Your task to perform on an android device: turn off translation in the chrome app Image 0: 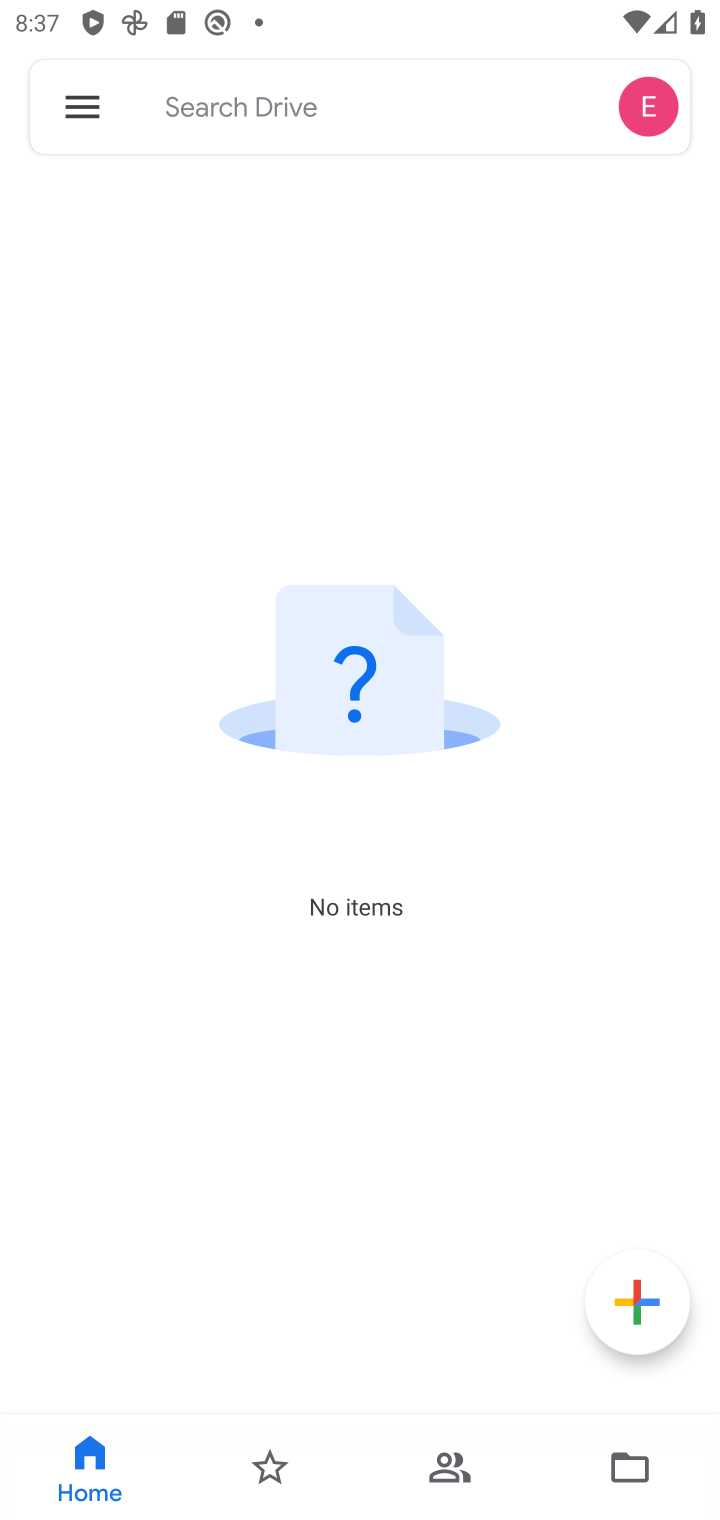
Step 0: press home button
Your task to perform on an android device: turn off translation in the chrome app Image 1: 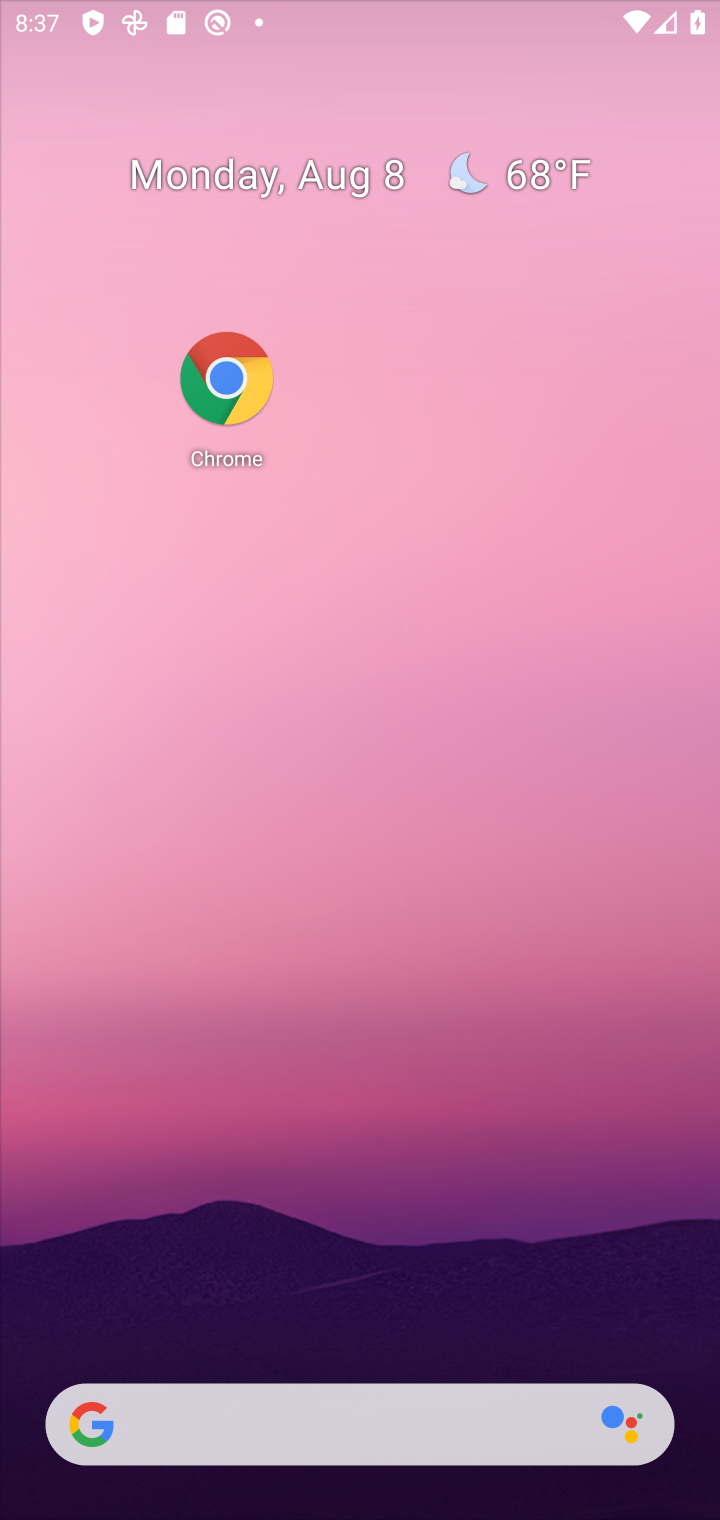
Step 1: drag from (440, 1220) to (422, 9)
Your task to perform on an android device: turn off translation in the chrome app Image 2: 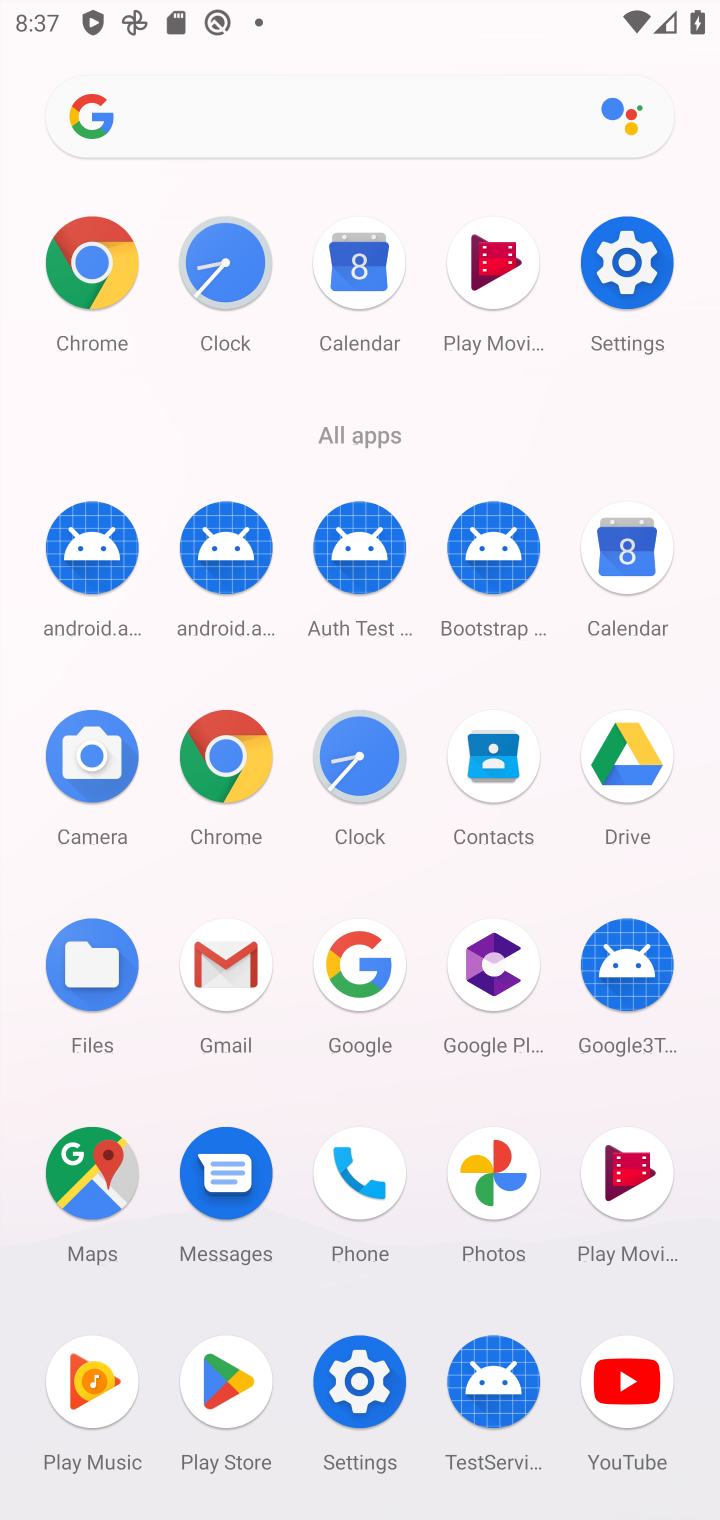
Step 2: click (92, 286)
Your task to perform on an android device: turn off translation in the chrome app Image 3: 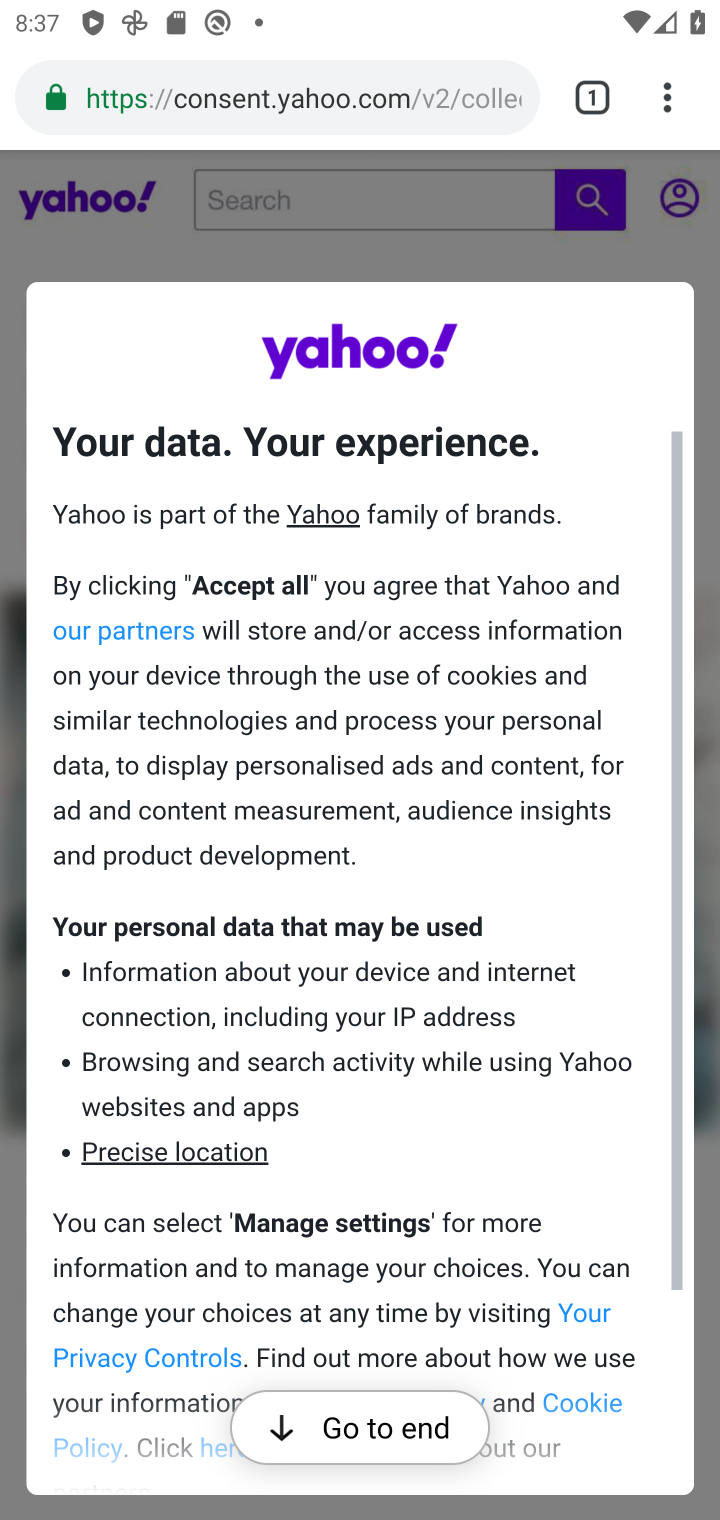
Step 3: drag from (671, 99) to (387, 1201)
Your task to perform on an android device: turn off translation in the chrome app Image 4: 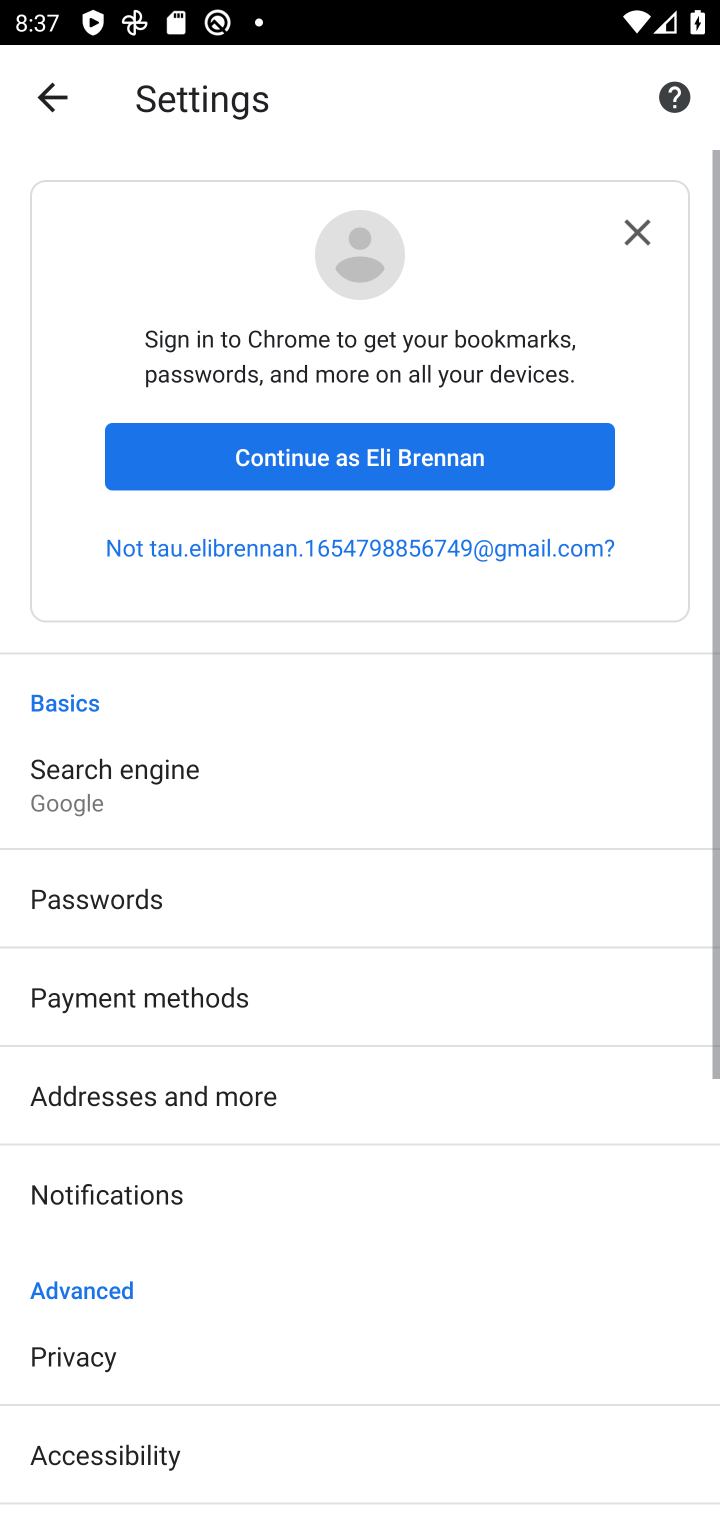
Step 4: drag from (200, 1368) to (314, 178)
Your task to perform on an android device: turn off translation in the chrome app Image 5: 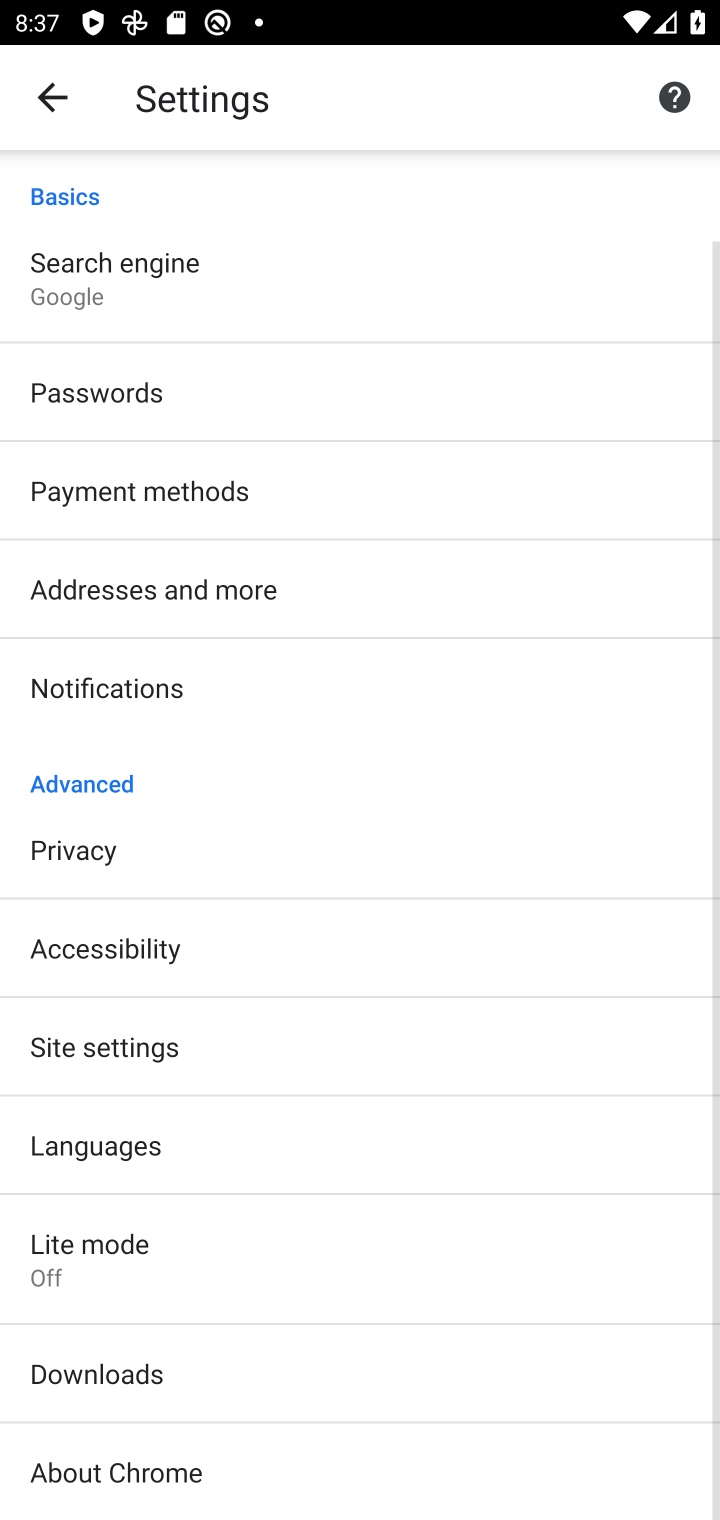
Step 5: drag from (170, 1411) to (282, 1045)
Your task to perform on an android device: turn off translation in the chrome app Image 6: 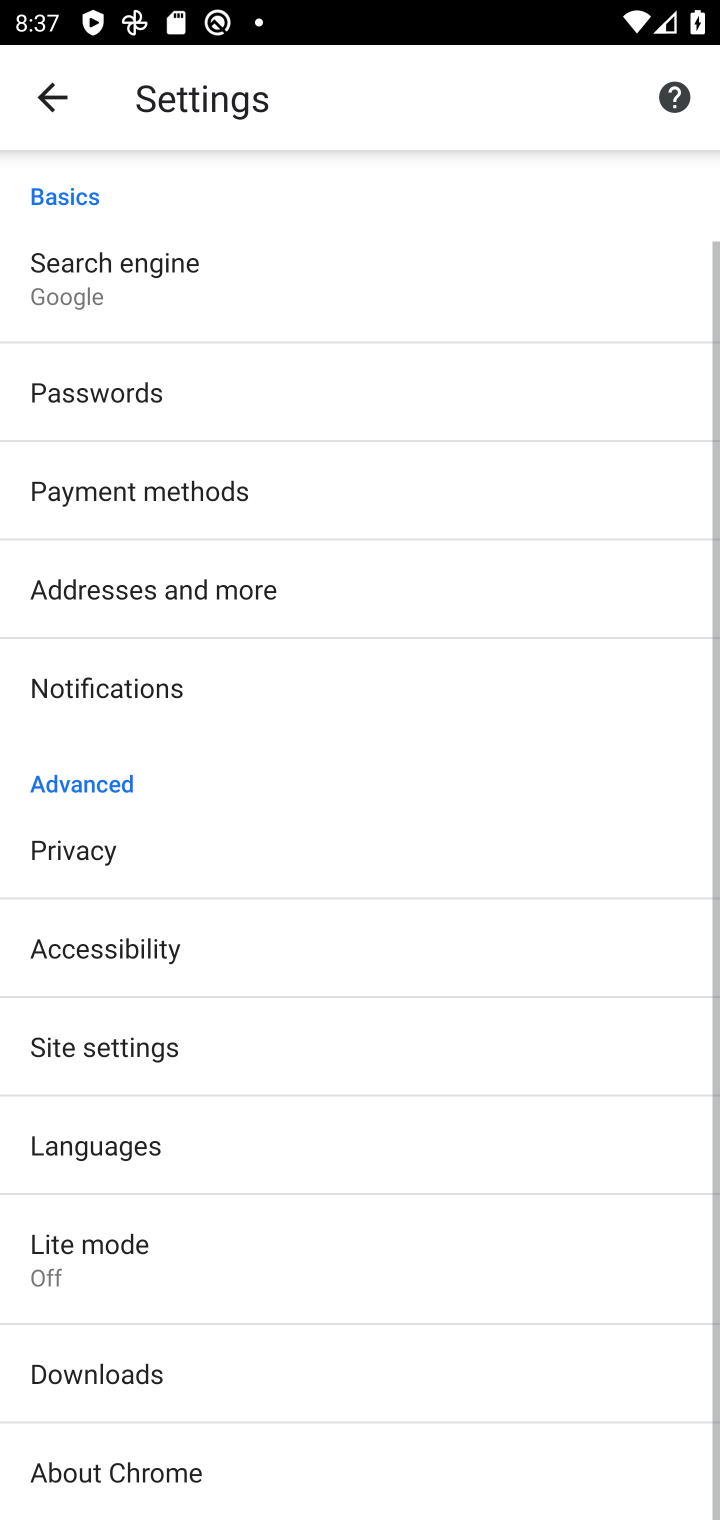
Step 6: click (143, 1148)
Your task to perform on an android device: turn off translation in the chrome app Image 7: 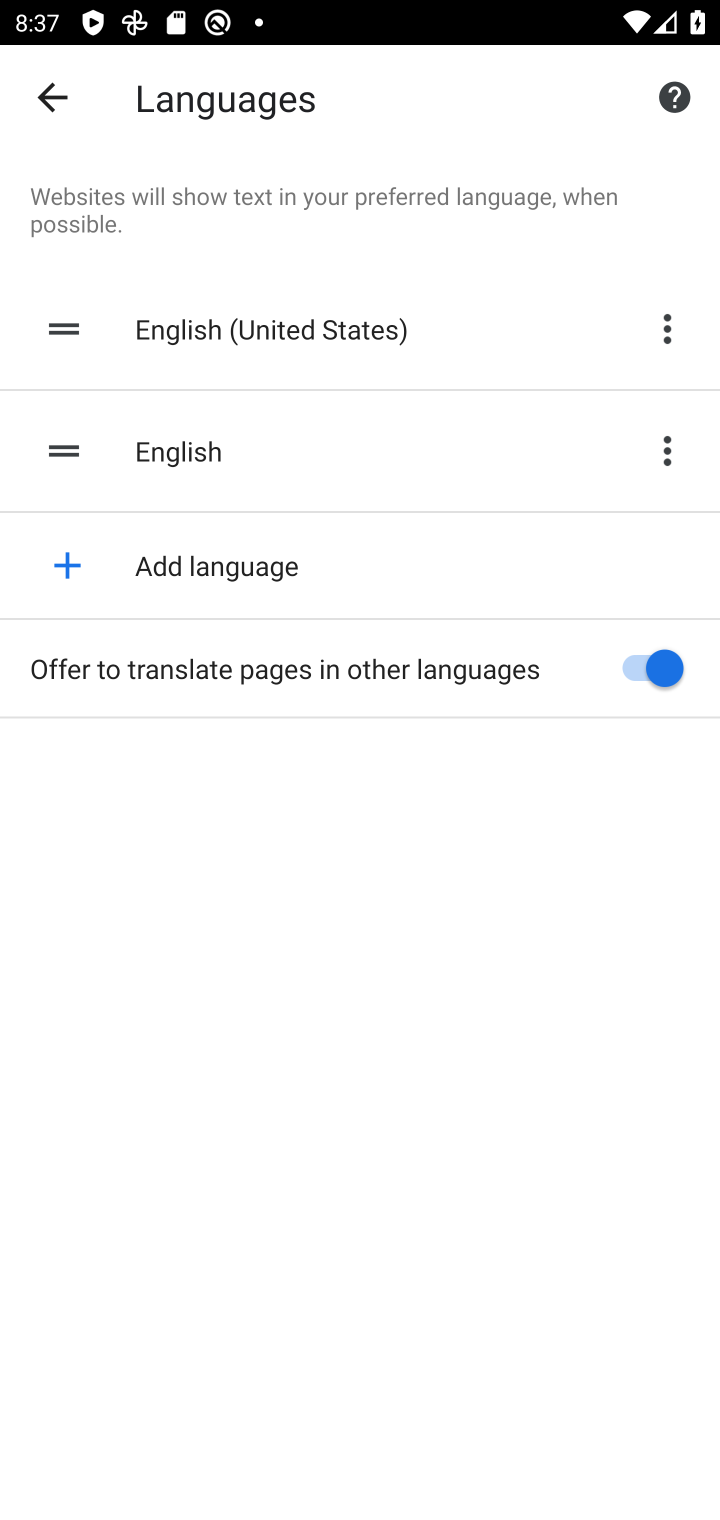
Step 7: click (657, 671)
Your task to perform on an android device: turn off translation in the chrome app Image 8: 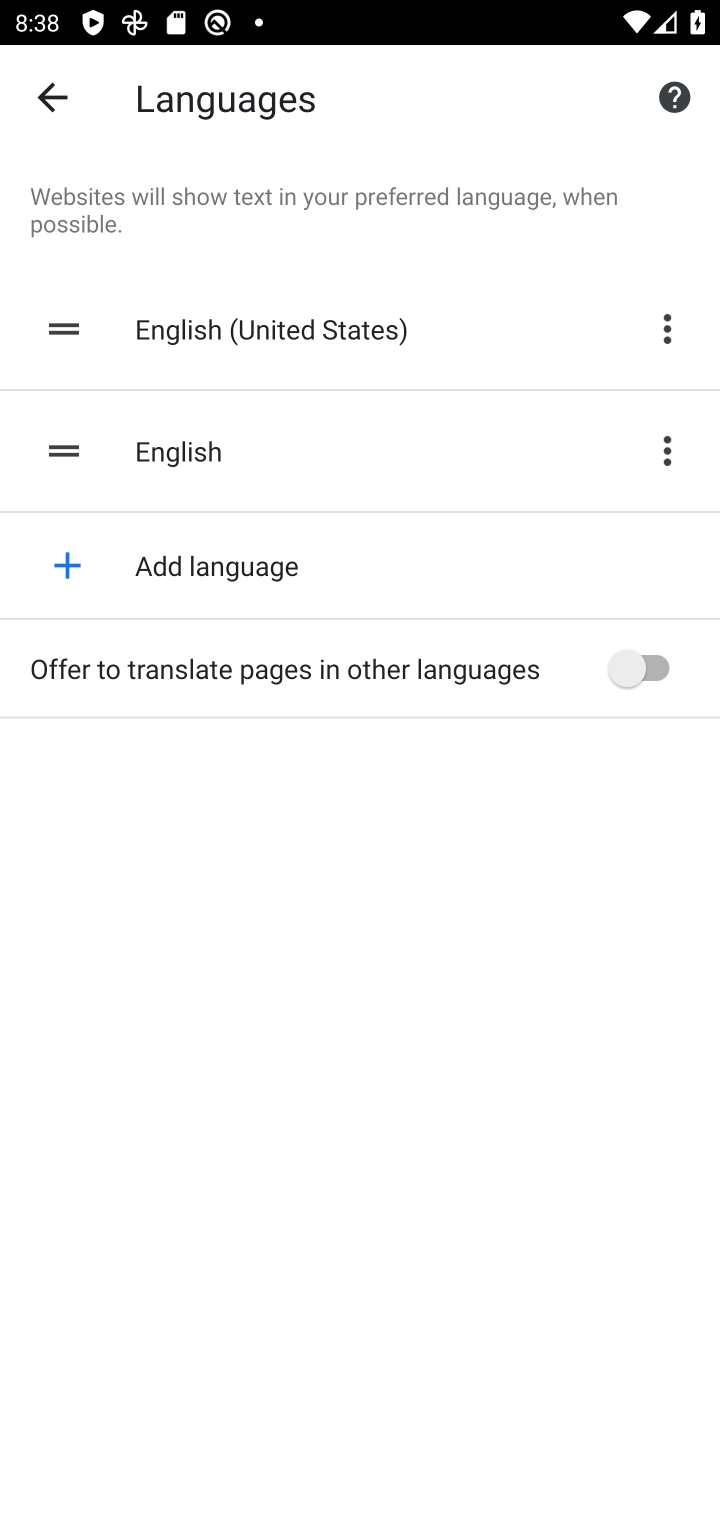
Step 8: task complete